Your task to perform on an android device: turn on the 24-hour format for clock Image 0: 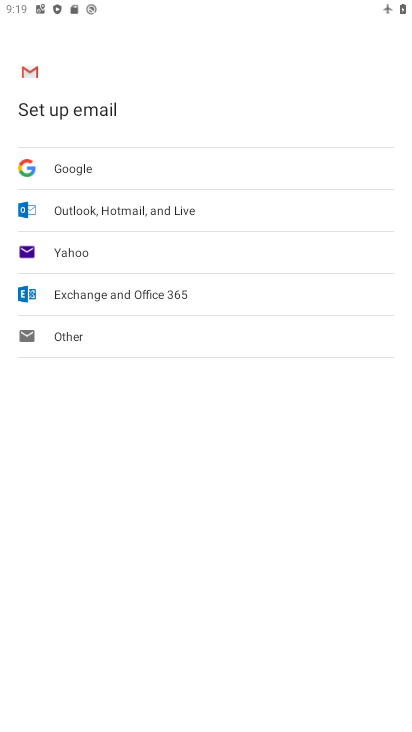
Step 0: press home button
Your task to perform on an android device: turn on the 24-hour format for clock Image 1: 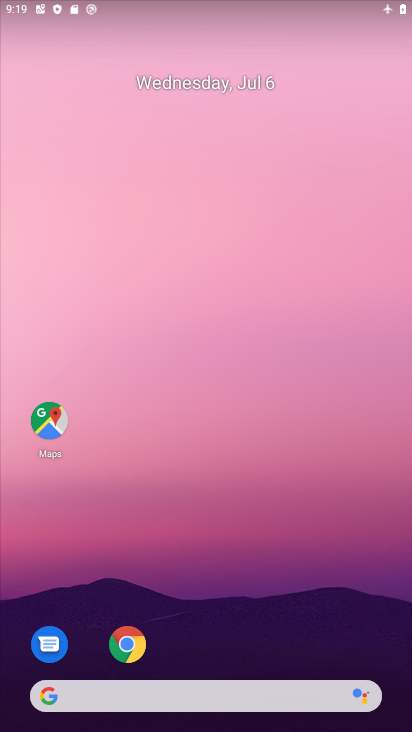
Step 1: drag from (198, 653) to (206, 159)
Your task to perform on an android device: turn on the 24-hour format for clock Image 2: 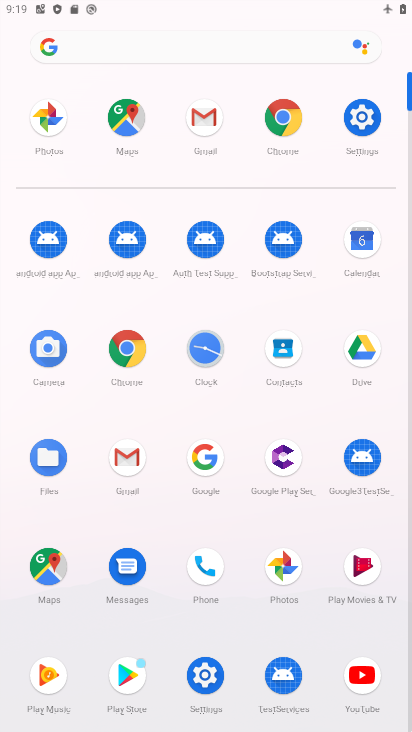
Step 2: click (194, 345)
Your task to perform on an android device: turn on the 24-hour format for clock Image 3: 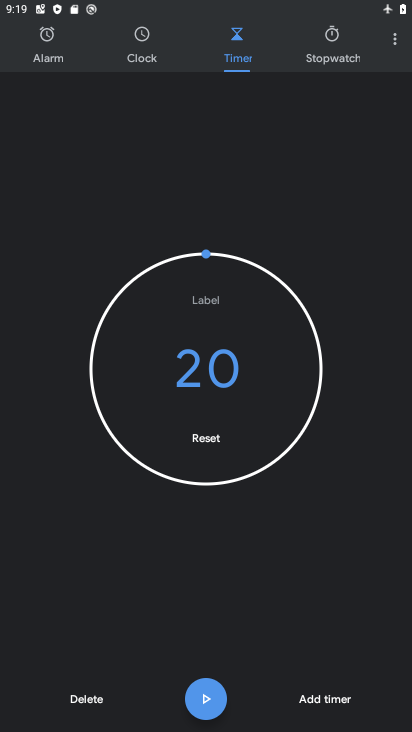
Step 3: click (386, 39)
Your task to perform on an android device: turn on the 24-hour format for clock Image 4: 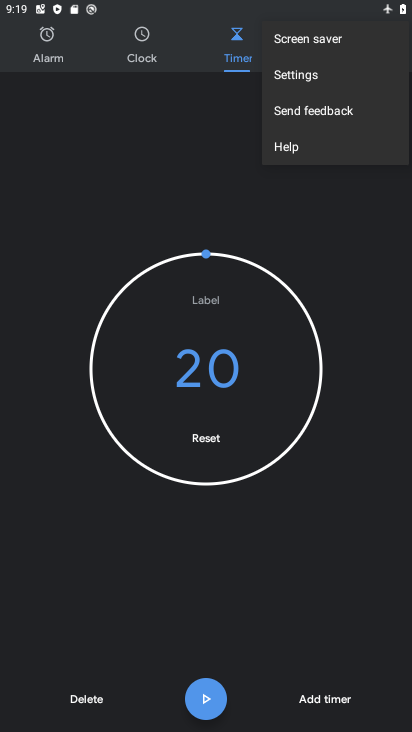
Step 4: click (332, 73)
Your task to perform on an android device: turn on the 24-hour format for clock Image 5: 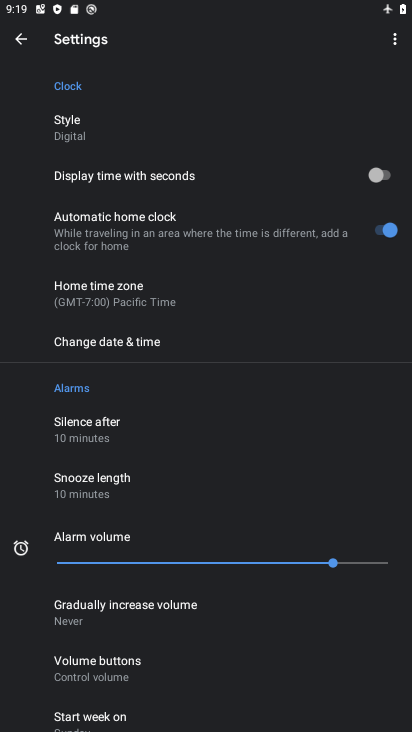
Step 5: click (139, 344)
Your task to perform on an android device: turn on the 24-hour format for clock Image 6: 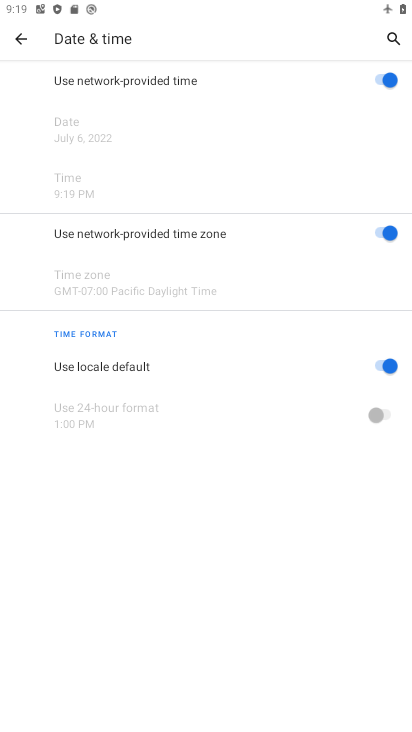
Step 6: click (160, 294)
Your task to perform on an android device: turn on the 24-hour format for clock Image 7: 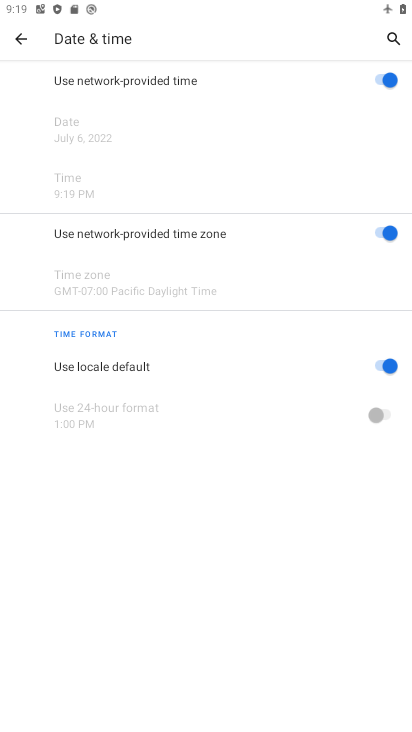
Step 7: click (387, 410)
Your task to perform on an android device: turn on the 24-hour format for clock Image 8: 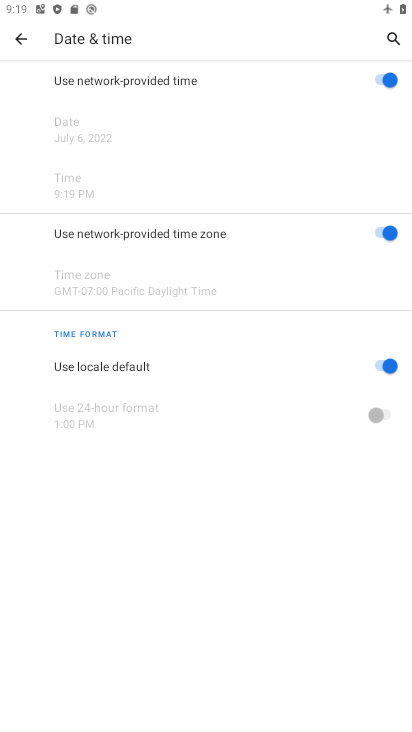
Step 8: click (380, 358)
Your task to perform on an android device: turn on the 24-hour format for clock Image 9: 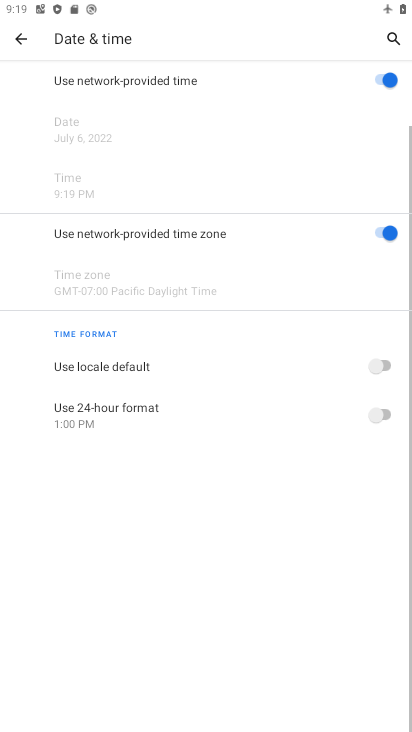
Step 9: click (385, 410)
Your task to perform on an android device: turn on the 24-hour format for clock Image 10: 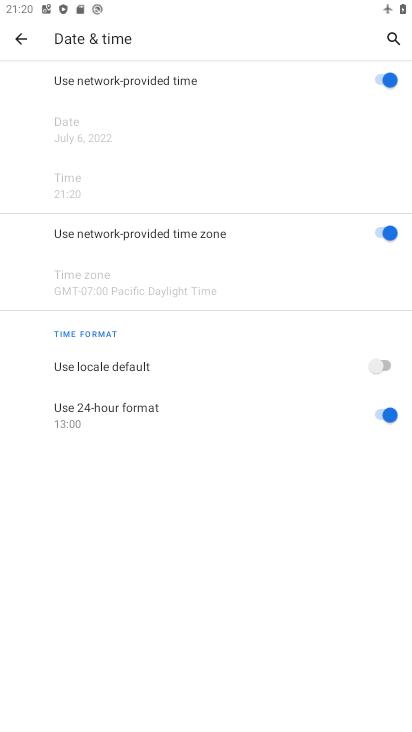
Step 10: task complete